Your task to perform on an android device: Find coffee shops on Maps Image 0: 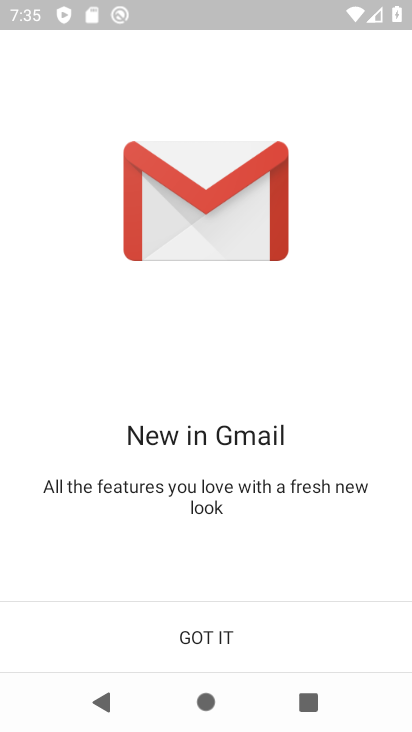
Step 0: press home button
Your task to perform on an android device: Find coffee shops on Maps Image 1: 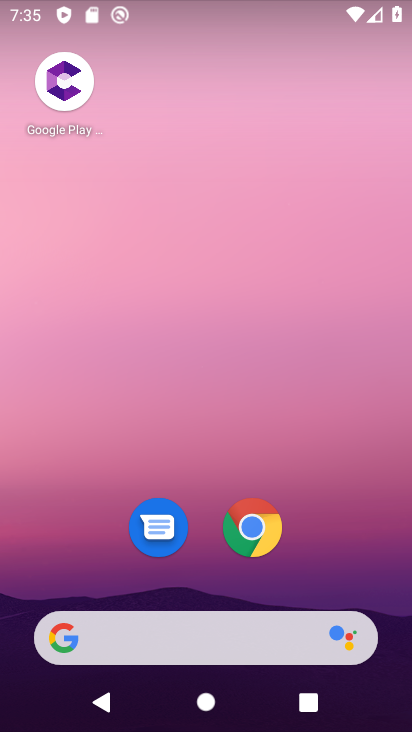
Step 1: drag from (277, 328) to (8, 543)
Your task to perform on an android device: Find coffee shops on Maps Image 2: 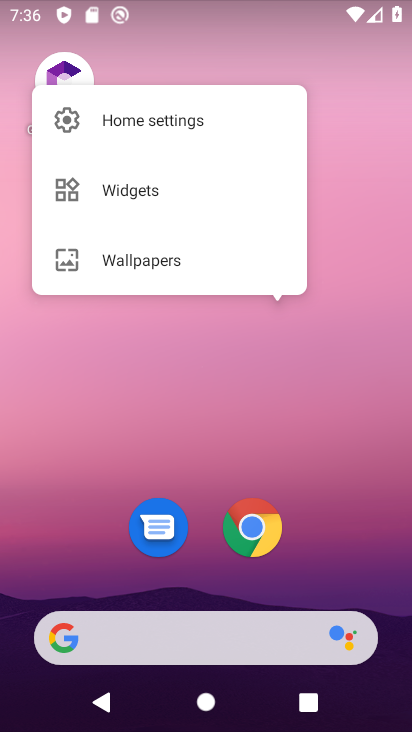
Step 2: press back button
Your task to perform on an android device: Find coffee shops on Maps Image 3: 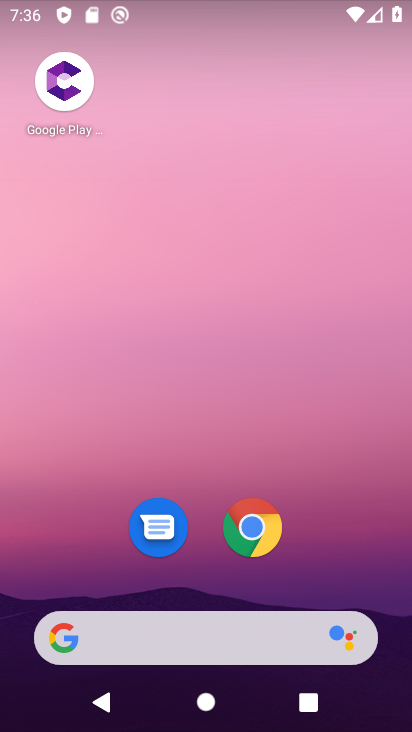
Step 3: drag from (16, 580) to (185, 253)
Your task to perform on an android device: Find coffee shops on Maps Image 4: 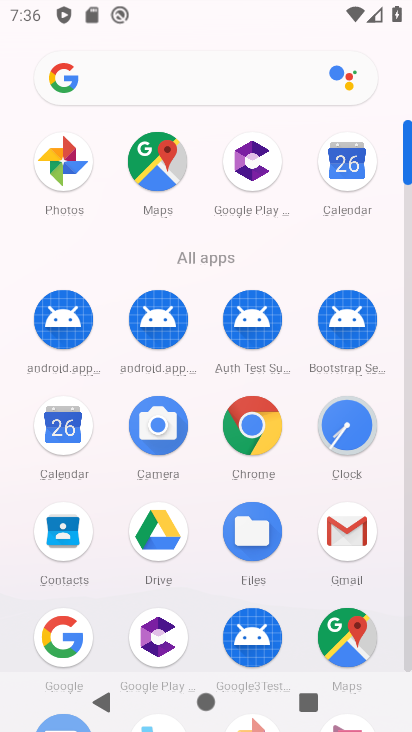
Step 4: click (329, 625)
Your task to perform on an android device: Find coffee shops on Maps Image 5: 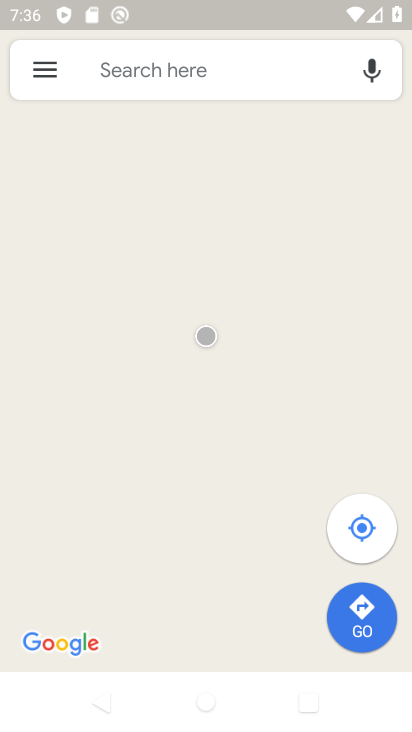
Step 5: click (160, 70)
Your task to perform on an android device: Find coffee shops on Maps Image 6: 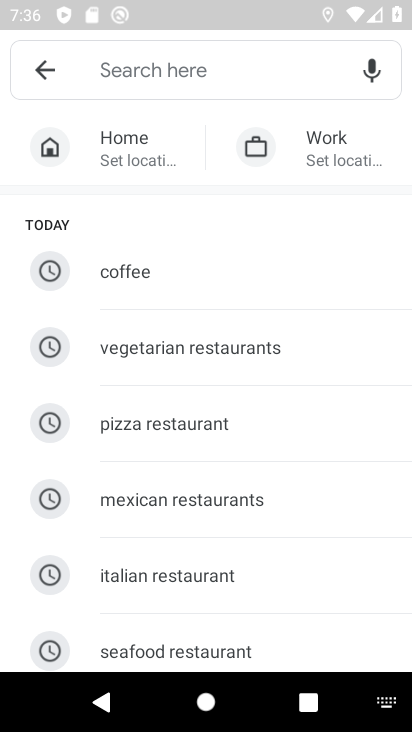
Step 6: click (94, 276)
Your task to perform on an android device: Find coffee shops on Maps Image 7: 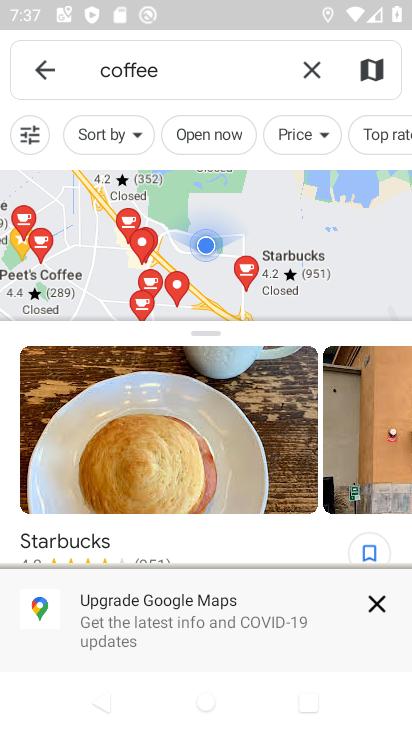
Step 7: task complete